Your task to perform on an android device: open wifi settings Image 0: 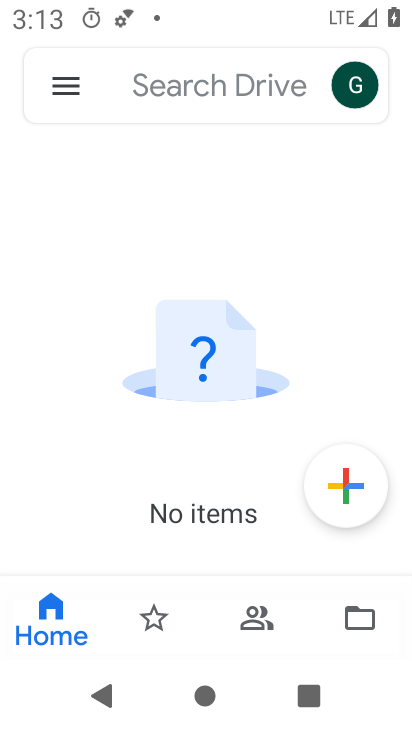
Step 0: press home button
Your task to perform on an android device: open wifi settings Image 1: 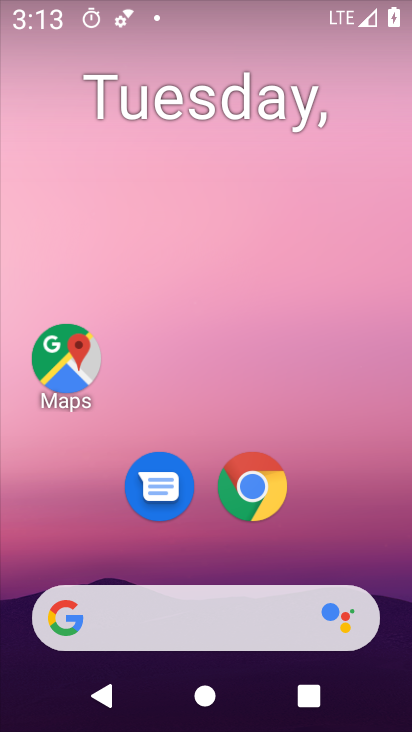
Step 1: drag from (345, 555) to (346, 112)
Your task to perform on an android device: open wifi settings Image 2: 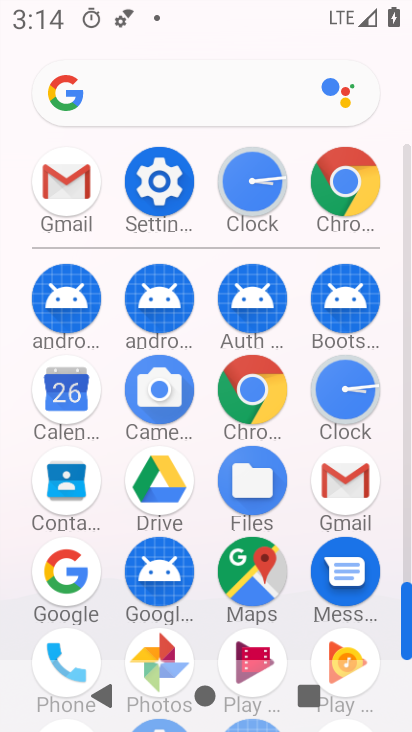
Step 2: click (177, 186)
Your task to perform on an android device: open wifi settings Image 3: 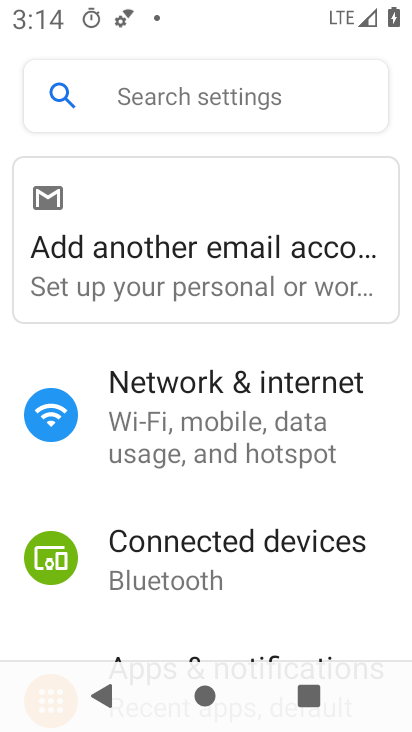
Step 3: drag from (326, 575) to (320, 415)
Your task to perform on an android device: open wifi settings Image 4: 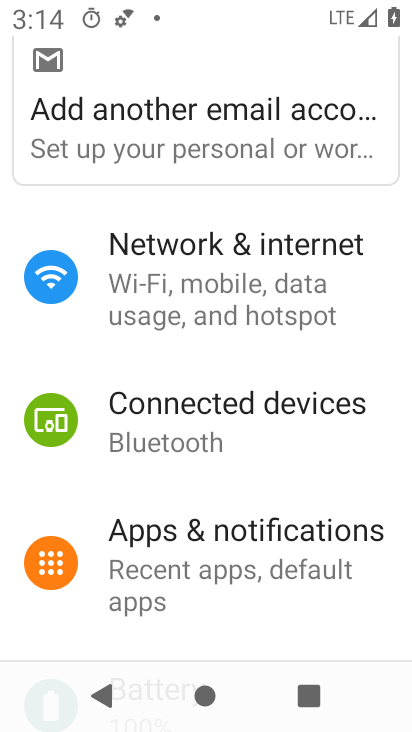
Step 4: drag from (345, 576) to (345, 430)
Your task to perform on an android device: open wifi settings Image 5: 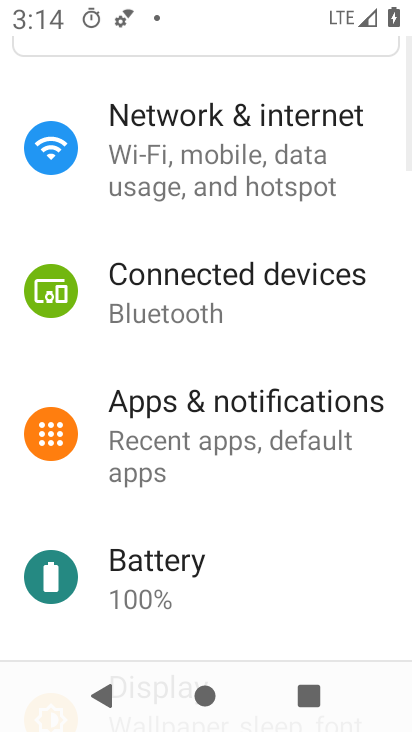
Step 5: drag from (356, 566) to (344, 432)
Your task to perform on an android device: open wifi settings Image 6: 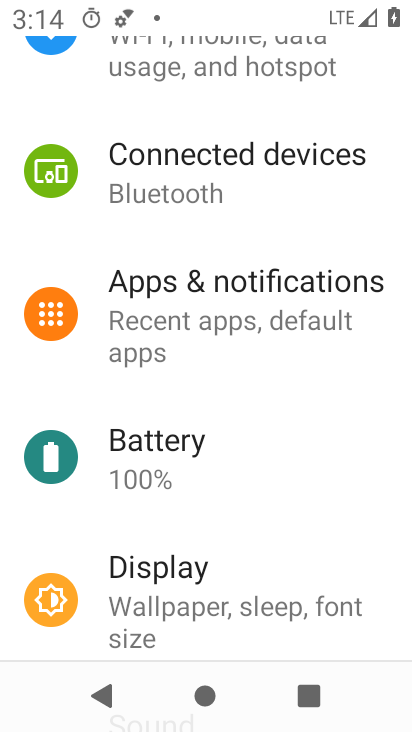
Step 6: drag from (341, 549) to (333, 417)
Your task to perform on an android device: open wifi settings Image 7: 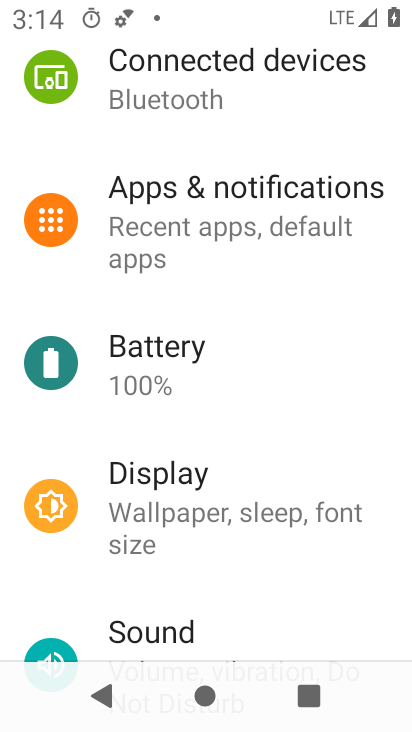
Step 7: drag from (347, 269) to (354, 380)
Your task to perform on an android device: open wifi settings Image 8: 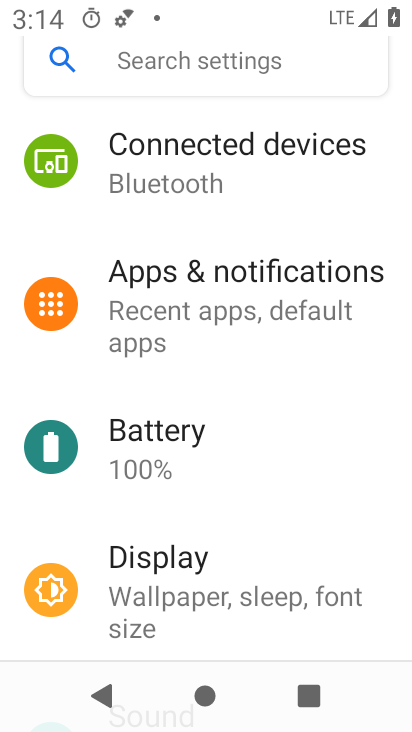
Step 8: drag from (363, 225) to (371, 360)
Your task to perform on an android device: open wifi settings Image 9: 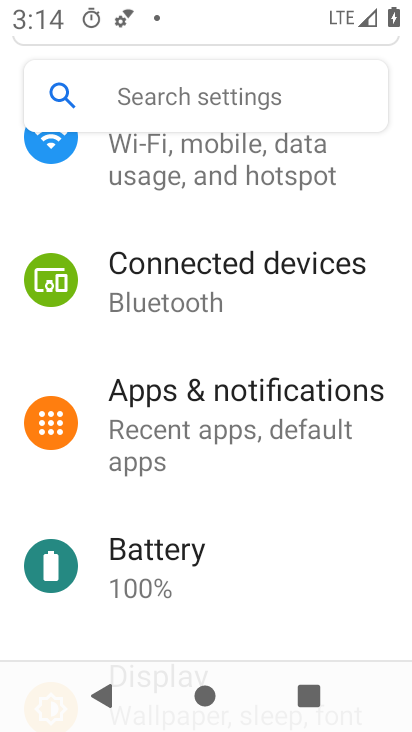
Step 9: drag from (366, 218) to (358, 402)
Your task to perform on an android device: open wifi settings Image 10: 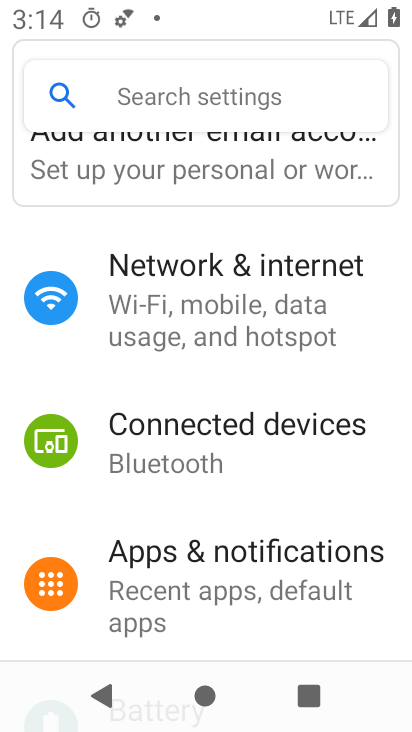
Step 10: click (344, 323)
Your task to perform on an android device: open wifi settings Image 11: 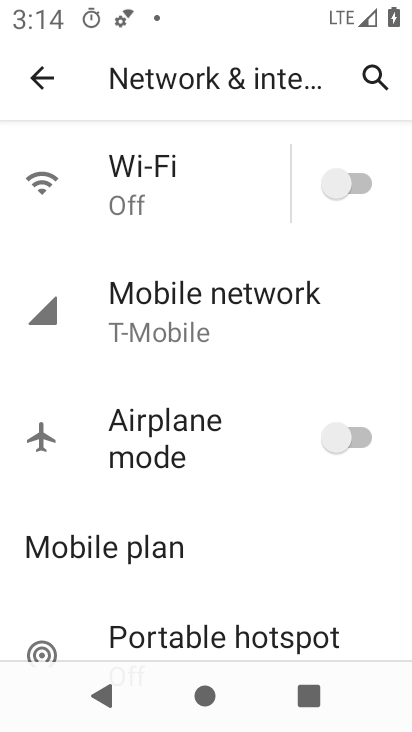
Step 11: click (174, 199)
Your task to perform on an android device: open wifi settings Image 12: 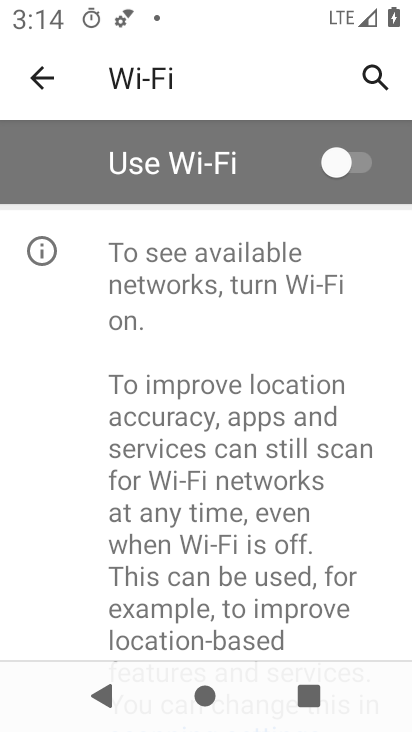
Step 12: task complete